Your task to perform on an android device: set the timer Image 0: 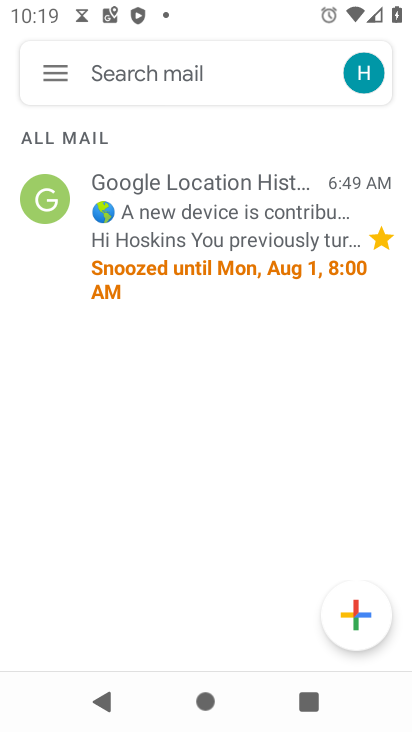
Step 0: press home button
Your task to perform on an android device: set the timer Image 1: 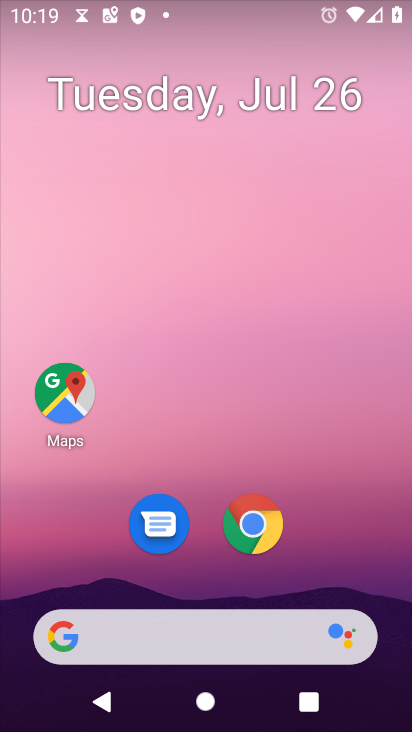
Step 1: drag from (213, 652) to (338, 106)
Your task to perform on an android device: set the timer Image 2: 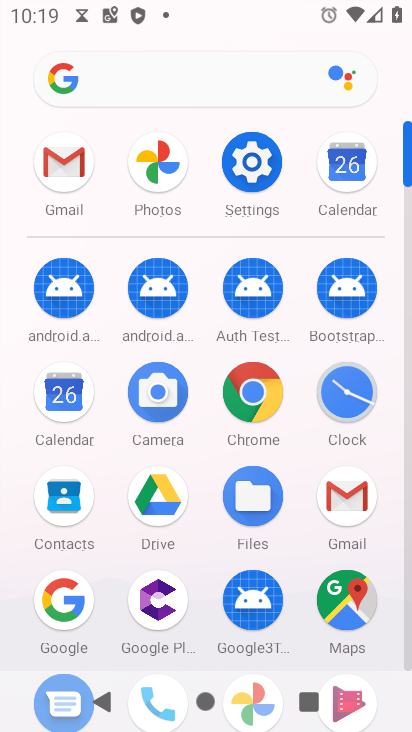
Step 2: click (352, 399)
Your task to perform on an android device: set the timer Image 3: 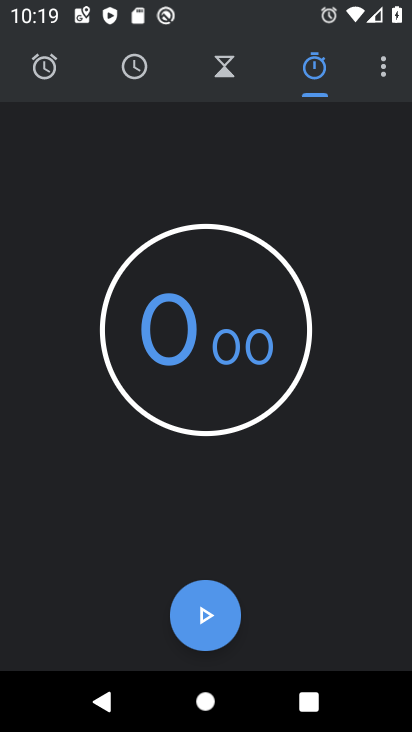
Step 3: click (227, 73)
Your task to perform on an android device: set the timer Image 4: 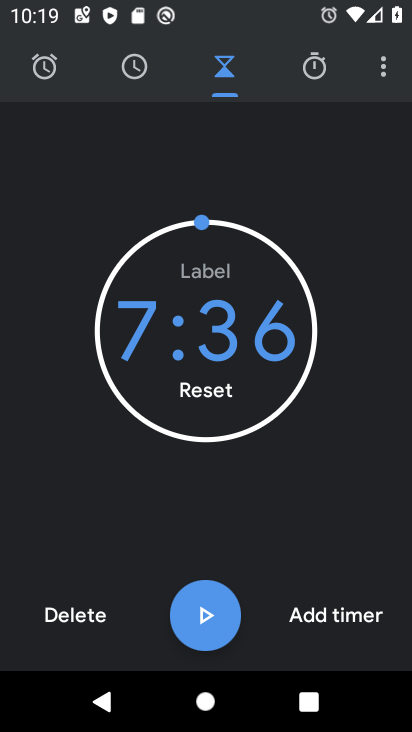
Step 4: click (75, 619)
Your task to perform on an android device: set the timer Image 5: 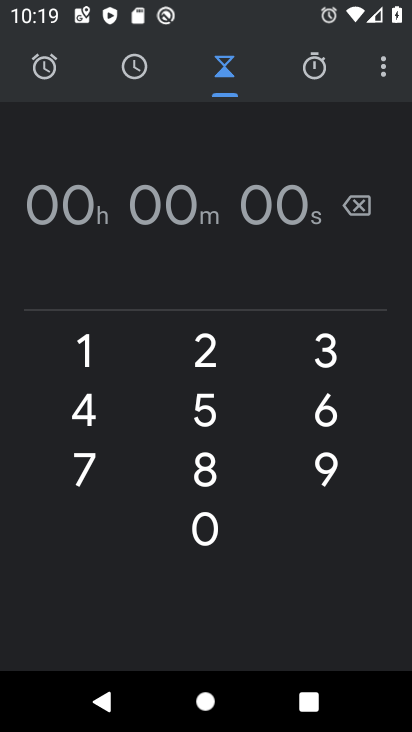
Step 5: click (196, 472)
Your task to perform on an android device: set the timer Image 6: 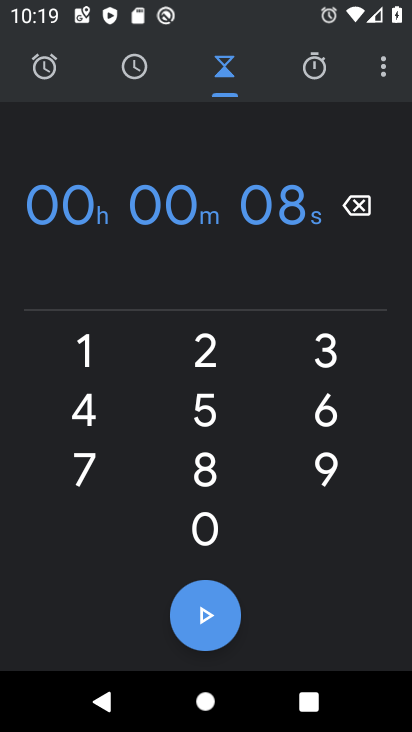
Step 6: click (90, 350)
Your task to perform on an android device: set the timer Image 7: 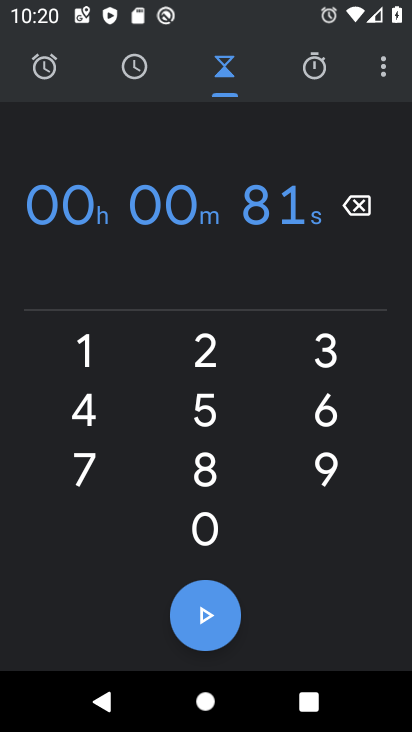
Step 7: click (85, 361)
Your task to perform on an android device: set the timer Image 8: 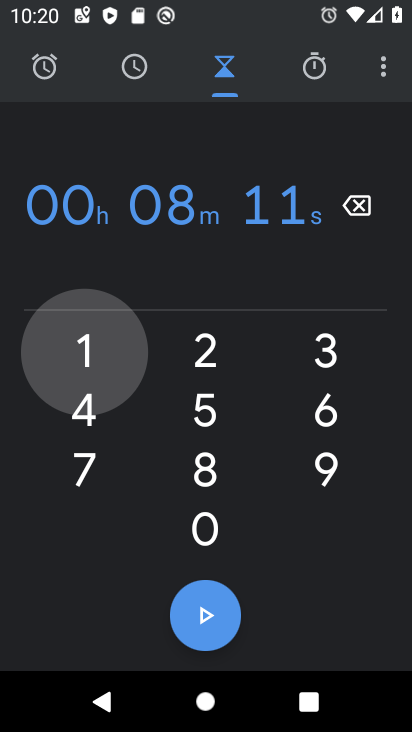
Step 8: click (208, 607)
Your task to perform on an android device: set the timer Image 9: 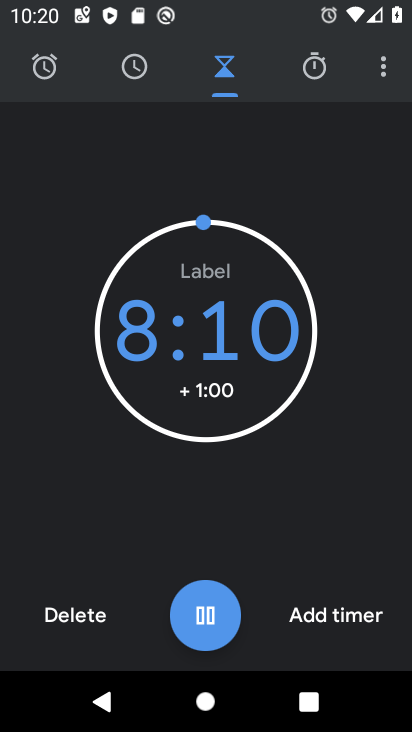
Step 9: click (205, 624)
Your task to perform on an android device: set the timer Image 10: 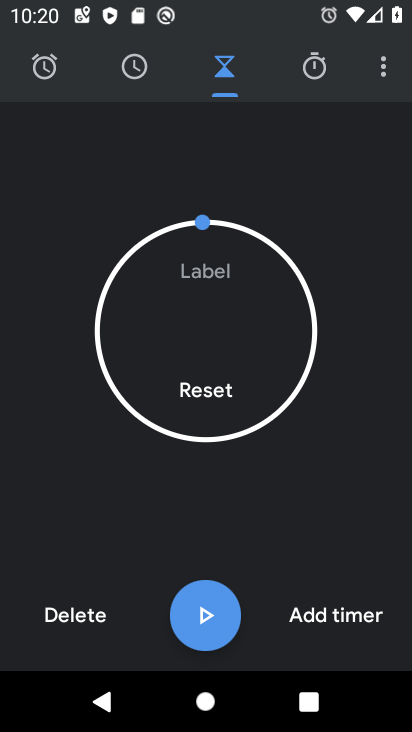
Step 10: task complete